Your task to perform on an android device: toggle sleep mode Image 0: 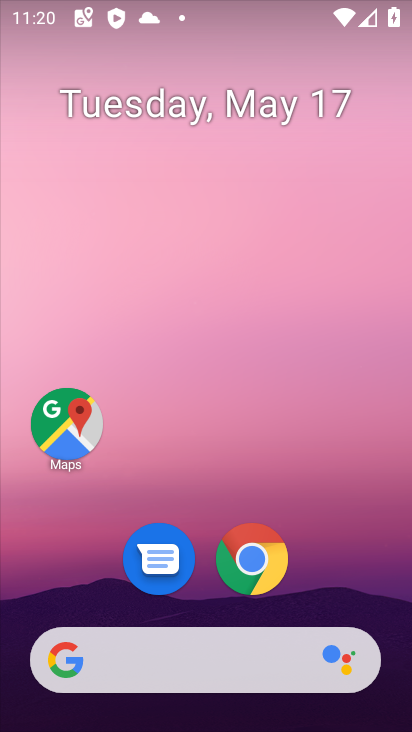
Step 0: drag from (233, 714) to (320, 116)
Your task to perform on an android device: toggle sleep mode Image 1: 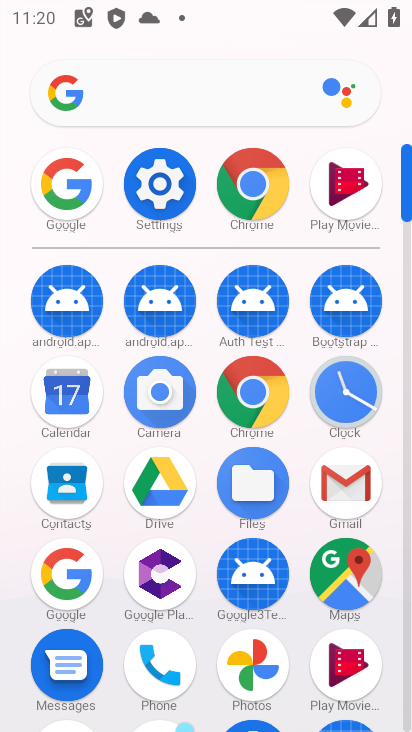
Step 1: click (164, 195)
Your task to perform on an android device: toggle sleep mode Image 2: 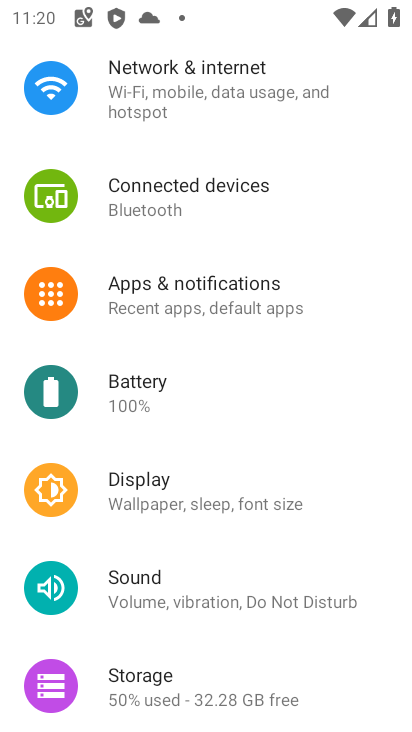
Step 2: click (265, 508)
Your task to perform on an android device: toggle sleep mode Image 3: 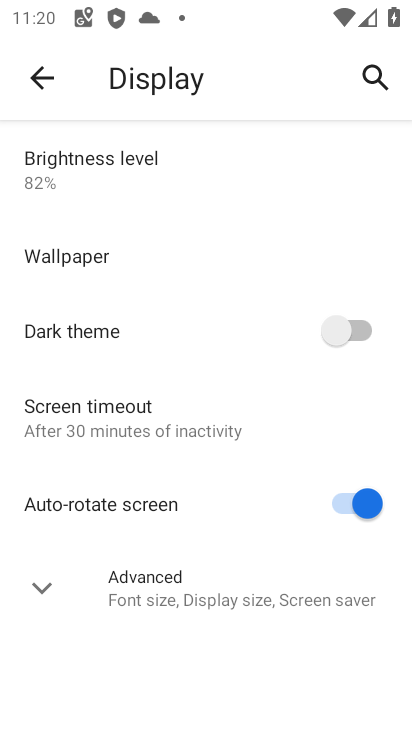
Step 3: task complete